Your task to perform on an android device: add a contact Image 0: 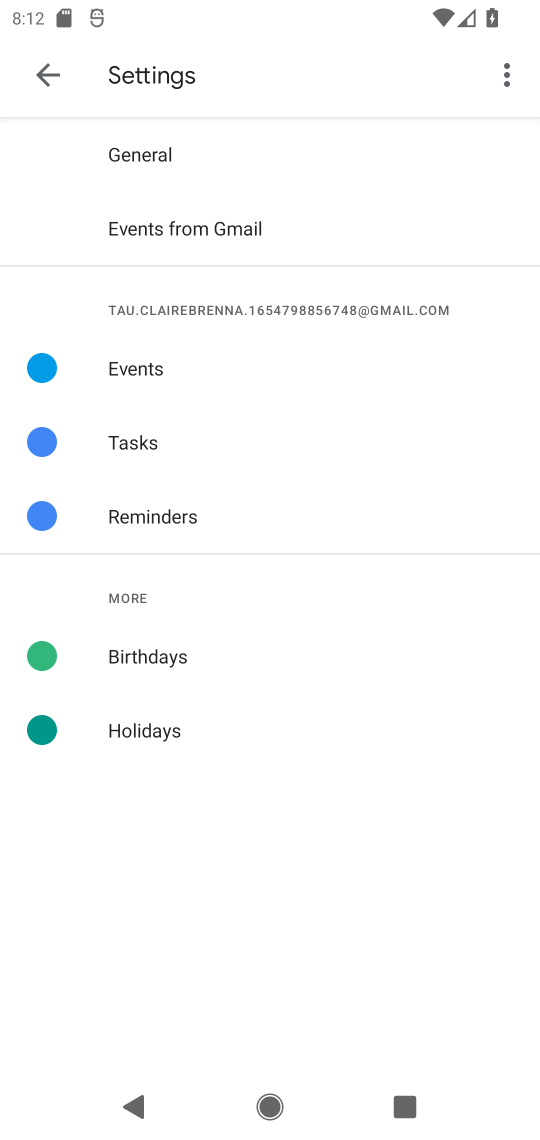
Step 0: press home button
Your task to perform on an android device: add a contact Image 1: 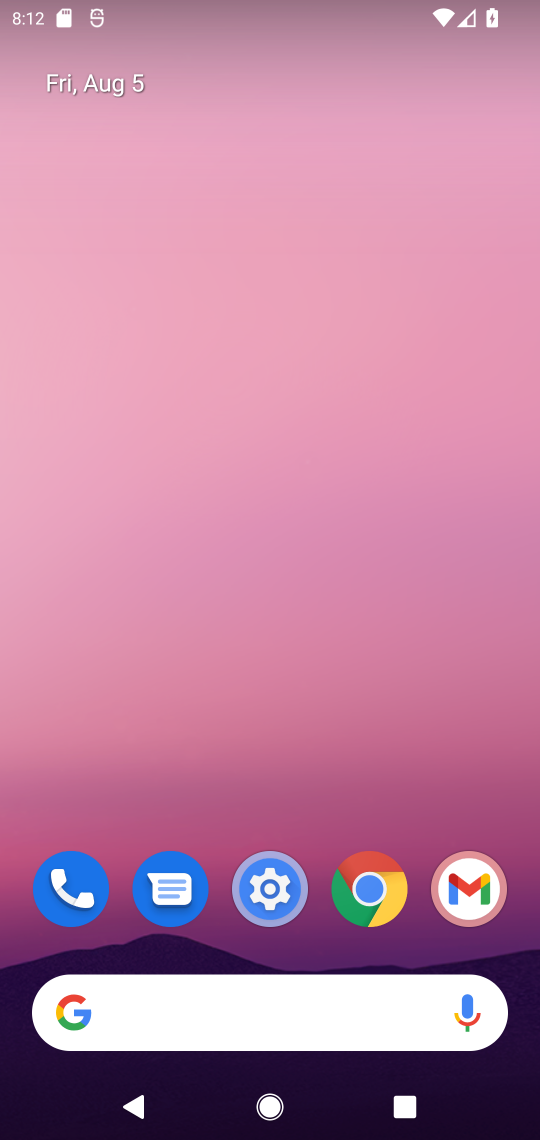
Step 1: drag from (237, 1019) to (396, 336)
Your task to perform on an android device: add a contact Image 2: 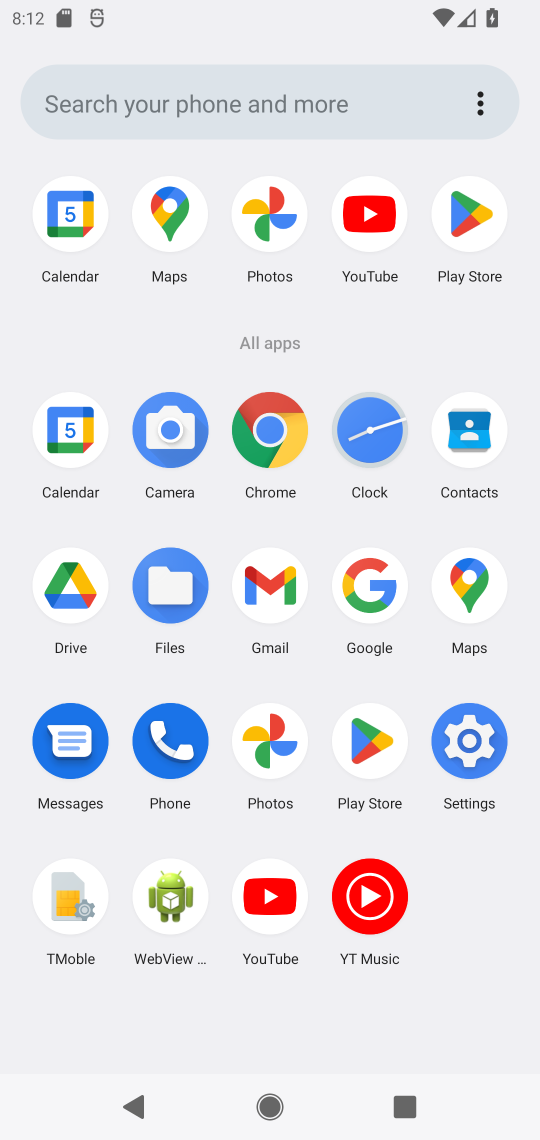
Step 2: click (170, 729)
Your task to perform on an android device: add a contact Image 3: 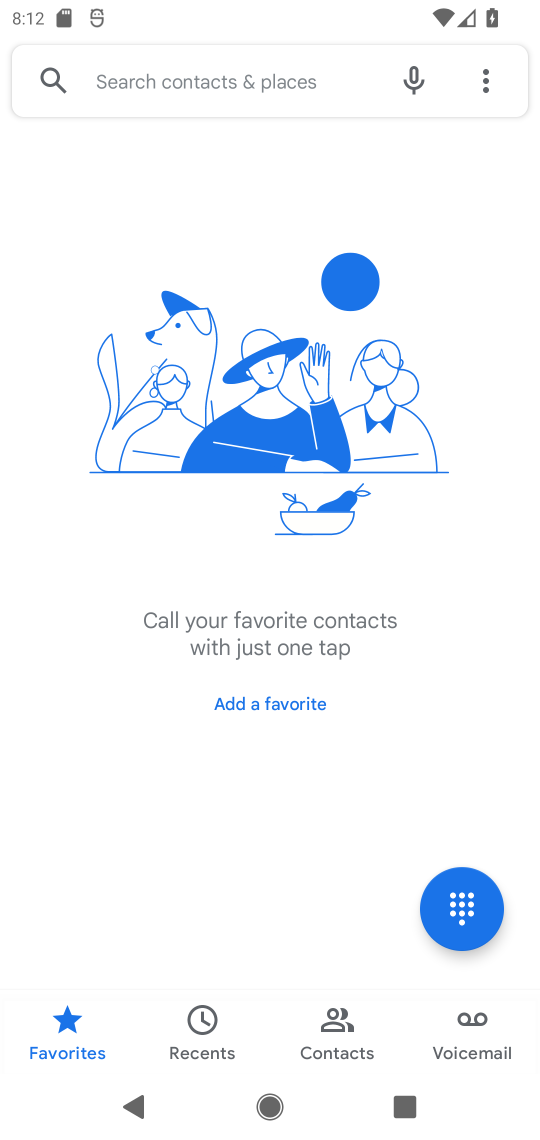
Step 3: click (338, 1023)
Your task to perform on an android device: add a contact Image 4: 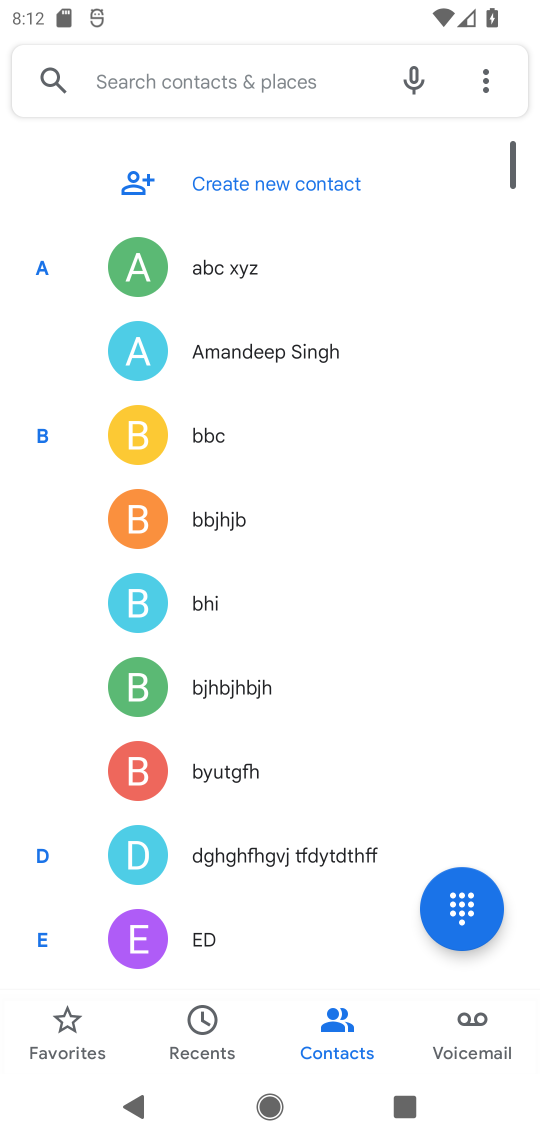
Step 4: click (196, 175)
Your task to perform on an android device: add a contact Image 5: 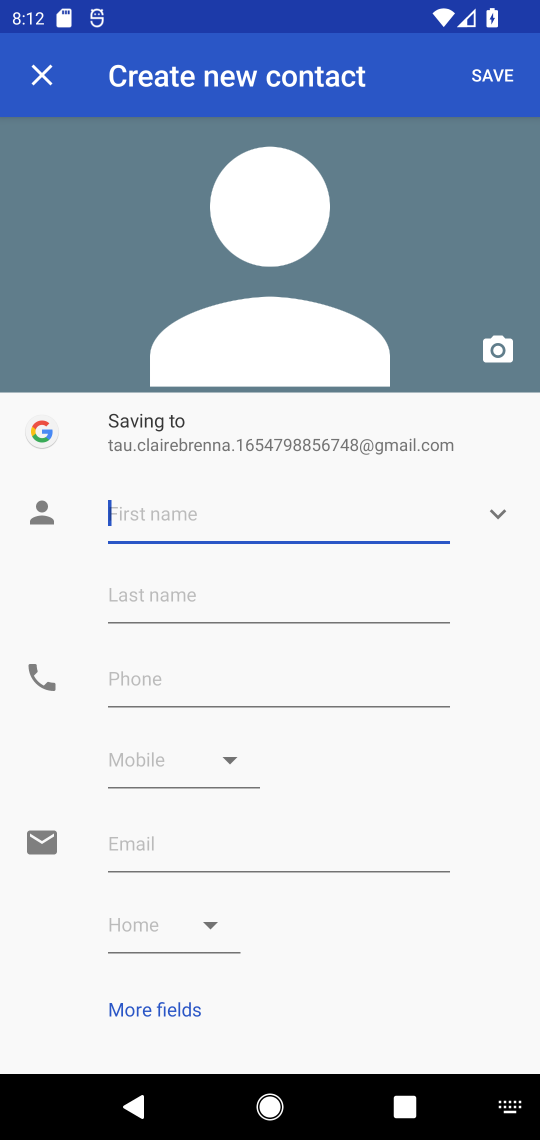
Step 5: click (256, 505)
Your task to perform on an android device: add a contact Image 6: 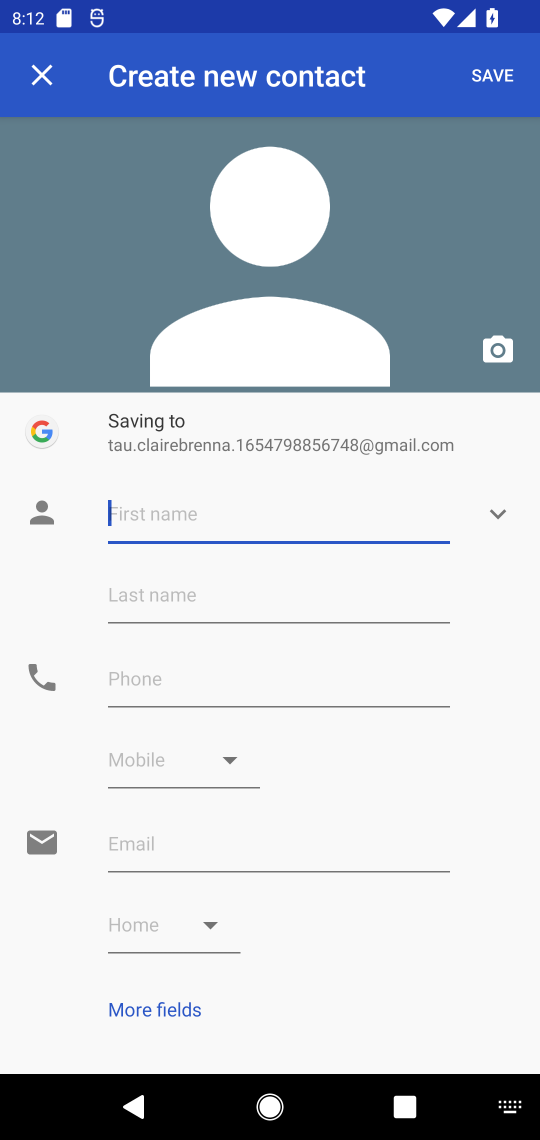
Step 6: type "incredible "
Your task to perform on an android device: add a contact Image 7: 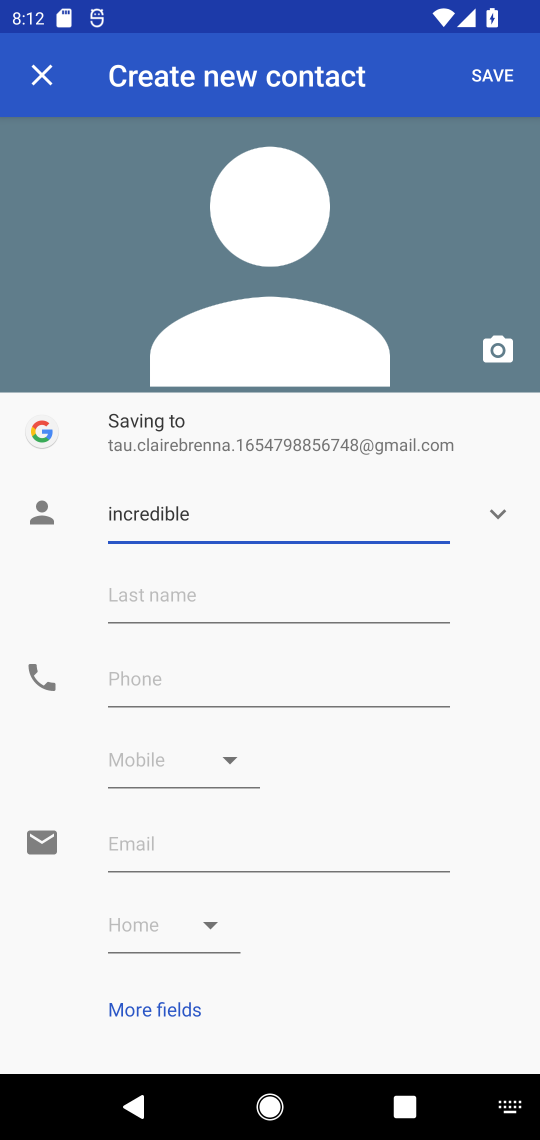
Step 7: click (240, 674)
Your task to perform on an android device: add a contact Image 8: 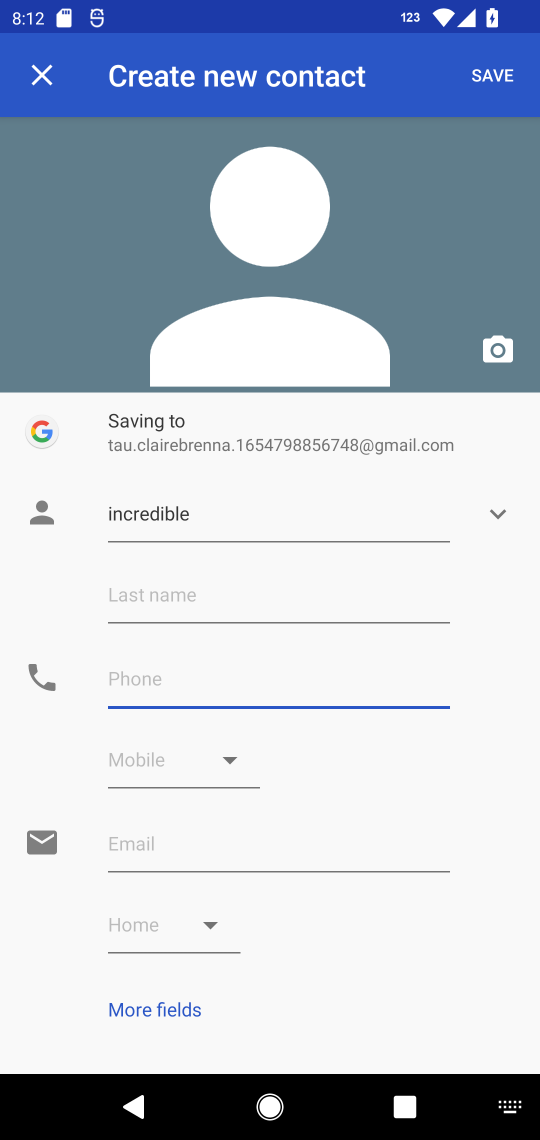
Step 8: type "8787878778 "
Your task to perform on an android device: add a contact Image 9: 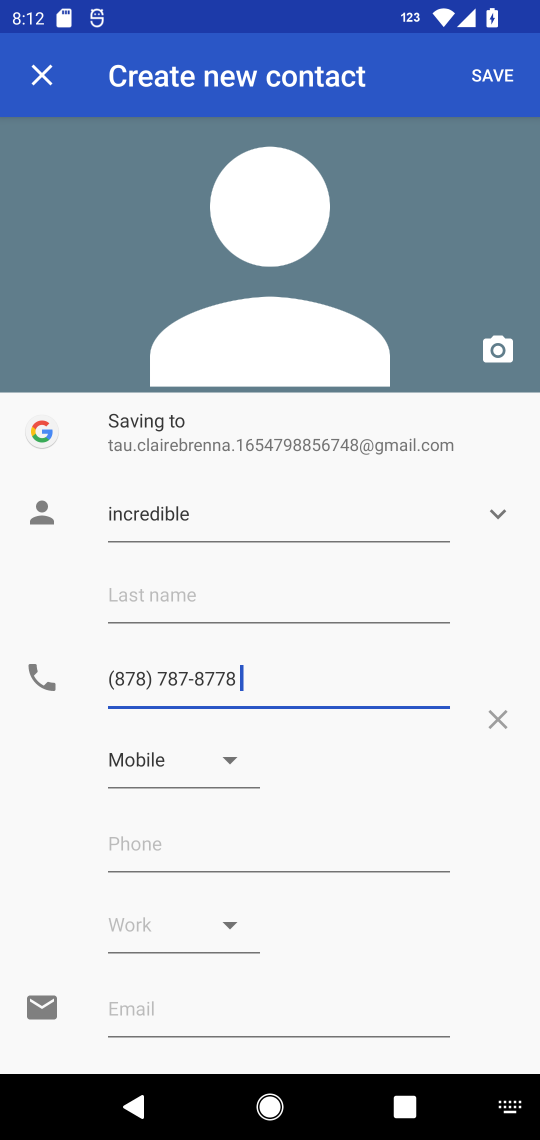
Step 9: click (506, 93)
Your task to perform on an android device: add a contact Image 10: 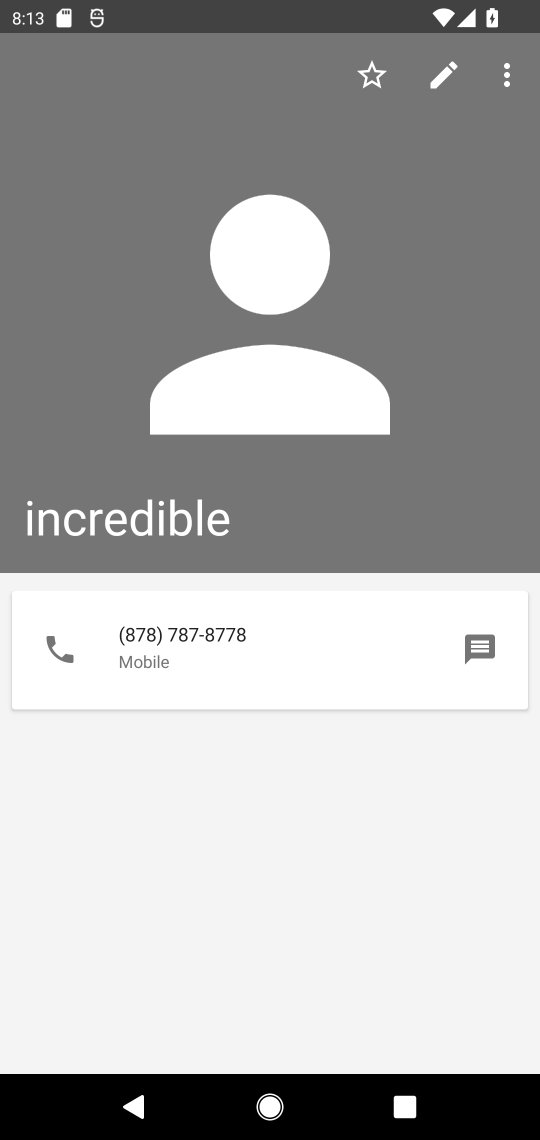
Step 10: task complete